Your task to perform on an android device: turn on priority inbox in the gmail app Image 0: 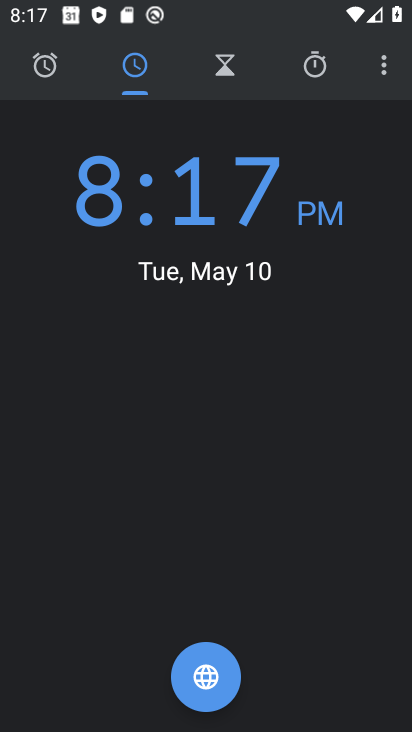
Step 0: press home button
Your task to perform on an android device: turn on priority inbox in the gmail app Image 1: 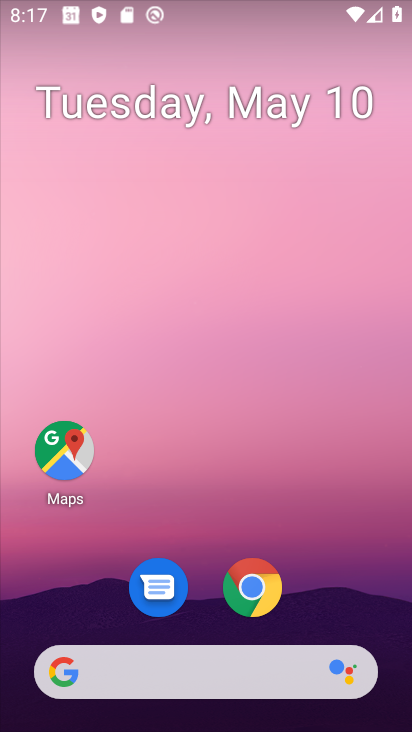
Step 1: drag from (365, 606) to (396, 46)
Your task to perform on an android device: turn on priority inbox in the gmail app Image 2: 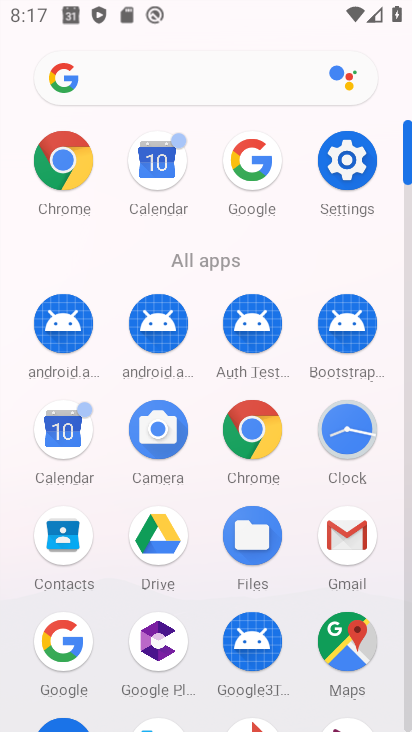
Step 2: click (354, 524)
Your task to perform on an android device: turn on priority inbox in the gmail app Image 3: 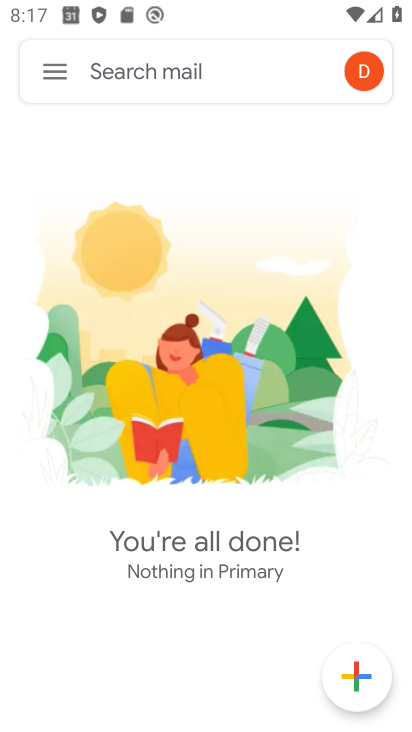
Step 3: click (35, 72)
Your task to perform on an android device: turn on priority inbox in the gmail app Image 4: 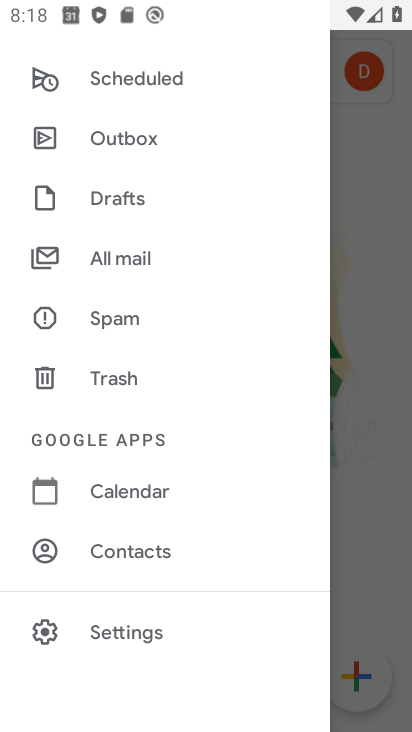
Step 4: click (113, 623)
Your task to perform on an android device: turn on priority inbox in the gmail app Image 5: 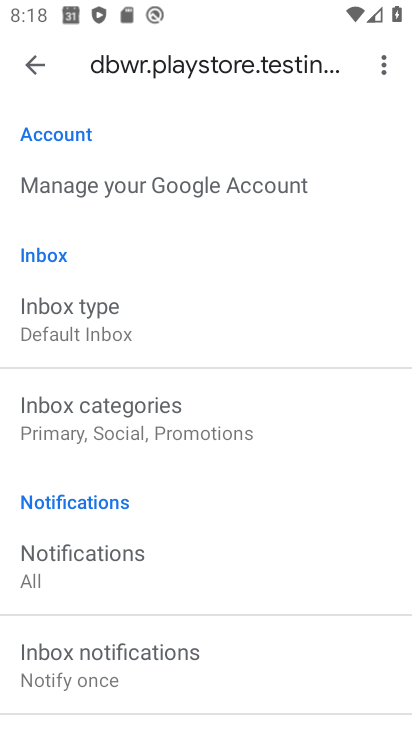
Step 5: click (90, 342)
Your task to perform on an android device: turn on priority inbox in the gmail app Image 6: 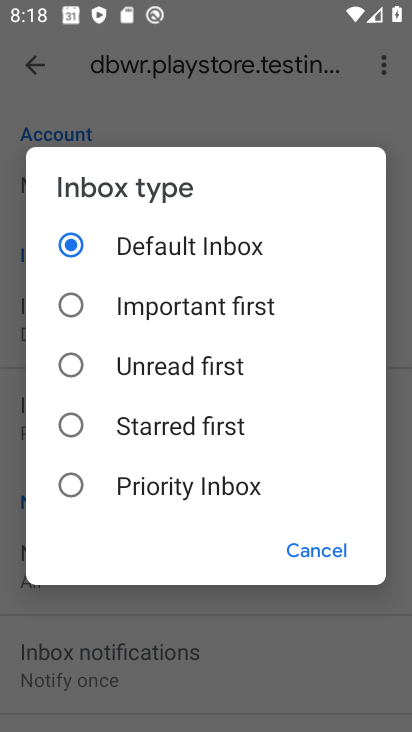
Step 6: click (97, 490)
Your task to perform on an android device: turn on priority inbox in the gmail app Image 7: 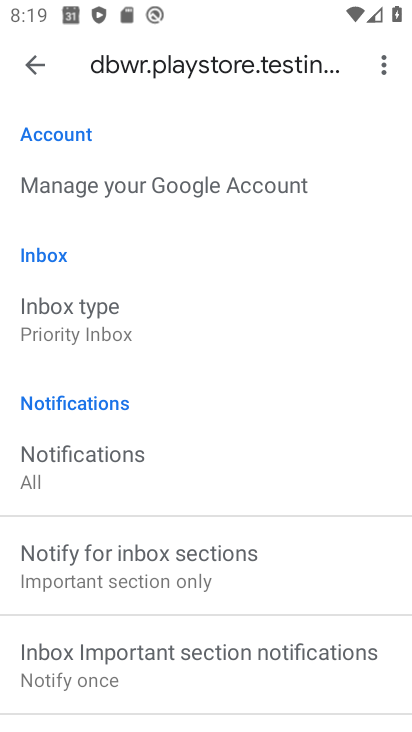
Step 7: task complete